Your task to perform on an android device: turn off airplane mode Image 0: 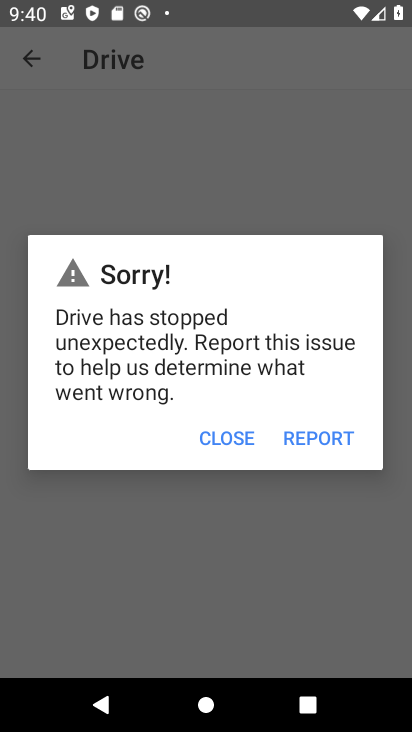
Step 0: press home button
Your task to perform on an android device: turn off airplane mode Image 1: 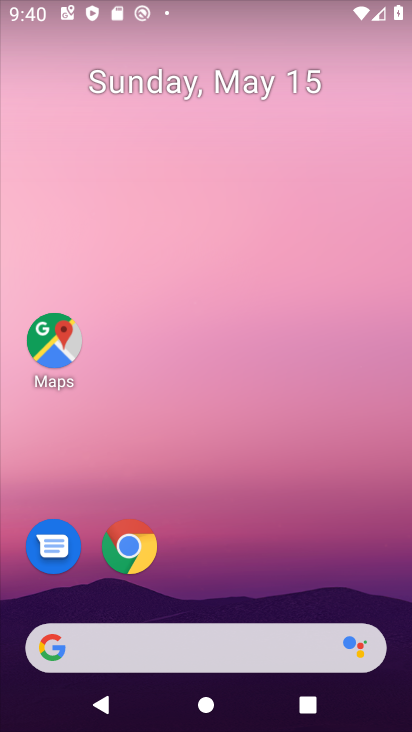
Step 1: drag from (264, 497) to (199, 10)
Your task to perform on an android device: turn off airplane mode Image 2: 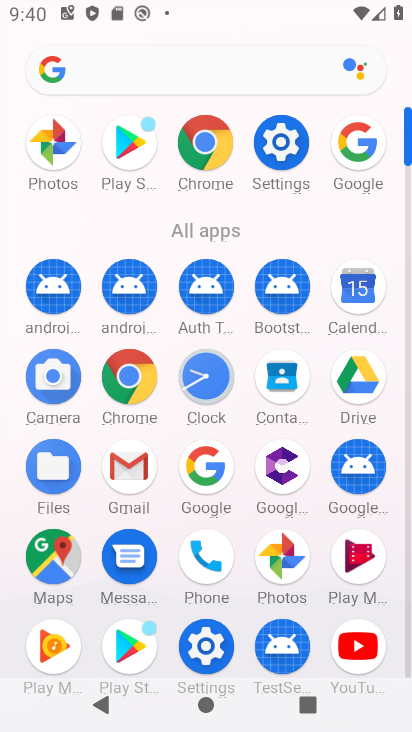
Step 2: click (280, 150)
Your task to perform on an android device: turn off airplane mode Image 3: 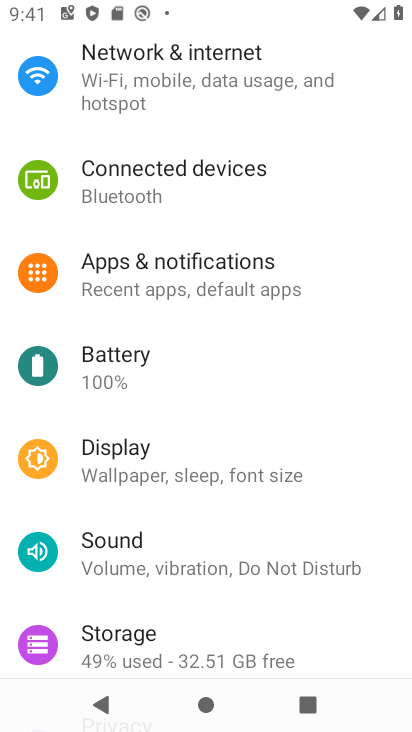
Step 3: click (254, 56)
Your task to perform on an android device: turn off airplane mode Image 4: 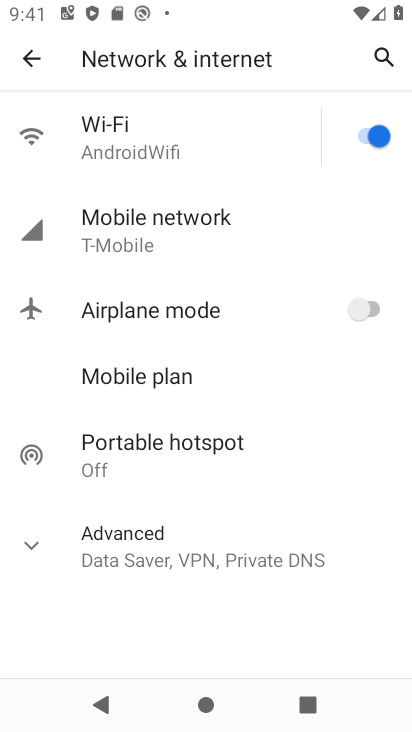
Step 4: task complete